Your task to perform on an android device: Go to Google Image 0: 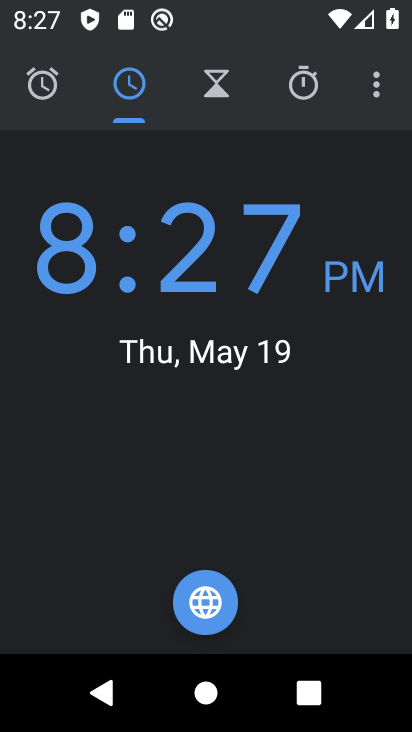
Step 0: press home button
Your task to perform on an android device: Go to Google Image 1: 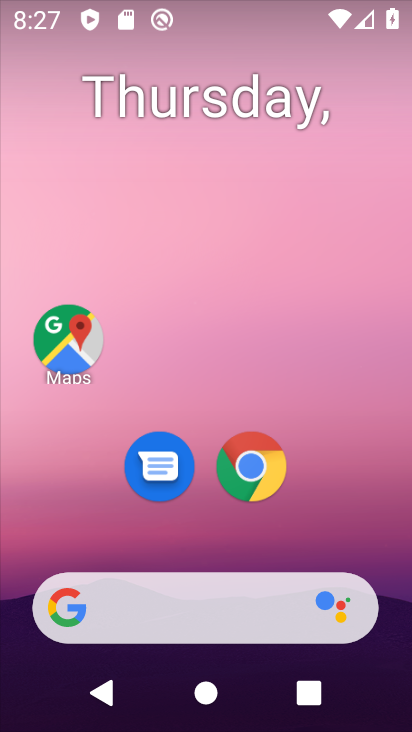
Step 1: drag from (160, 620) to (279, 220)
Your task to perform on an android device: Go to Google Image 2: 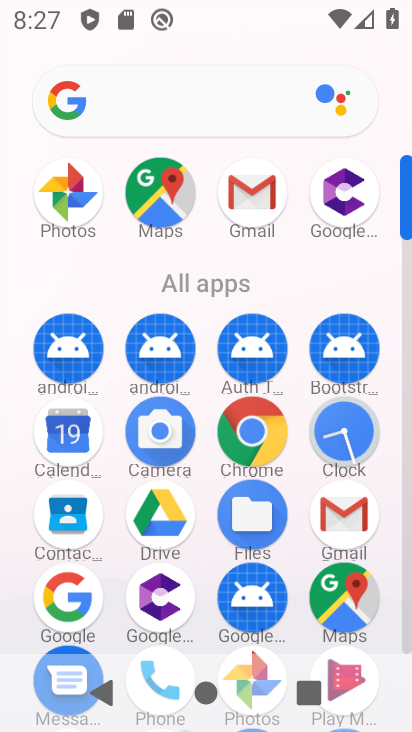
Step 2: click (80, 601)
Your task to perform on an android device: Go to Google Image 3: 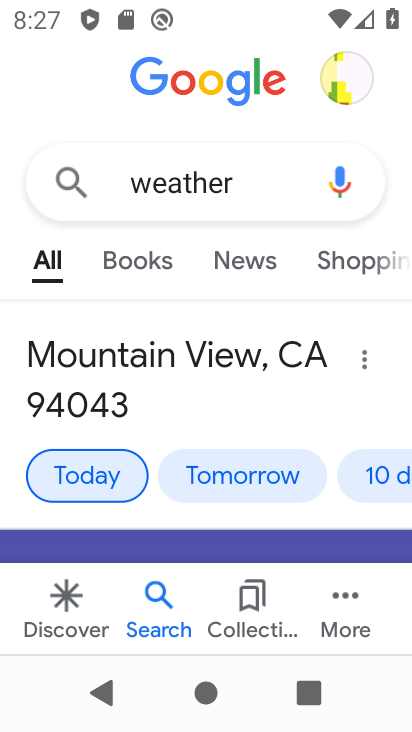
Step 3: click (63, 622)
Your task to perform on an android device: Go to Google Image 4: 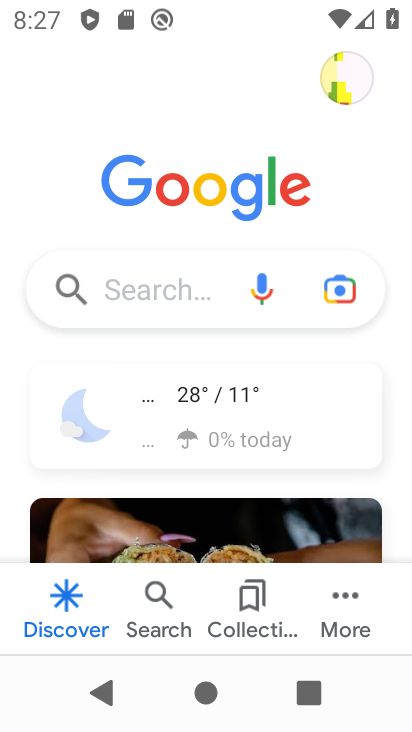
Step 4: task complete